Your task to perform on an android device: Open the calendar and show me this week's events? Image 0: 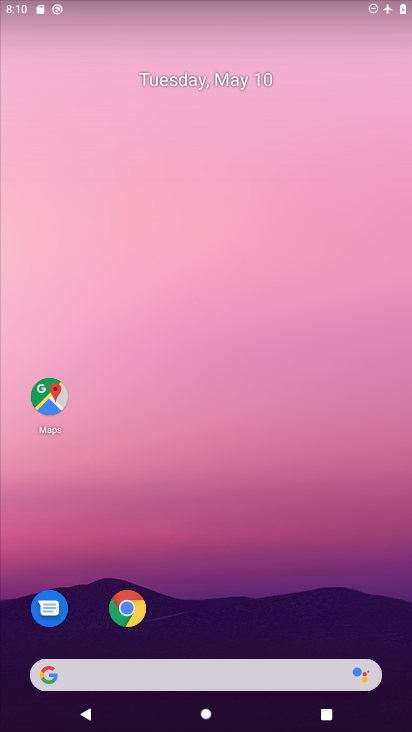
Step 0: drag from (280, 579) to (297, 252)
Your task to perform on an android device: Open the calendar and show me this week's events? Image 1: 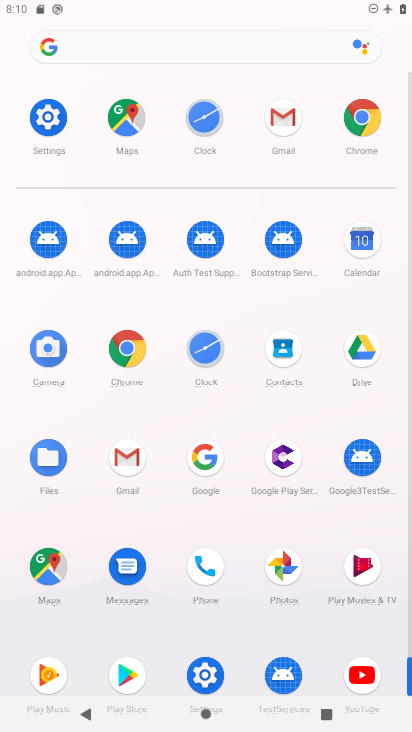
Step 1: click (359, 229)
Your task to perform on an android device: Open the calendar and show me this week's events? Image 2: 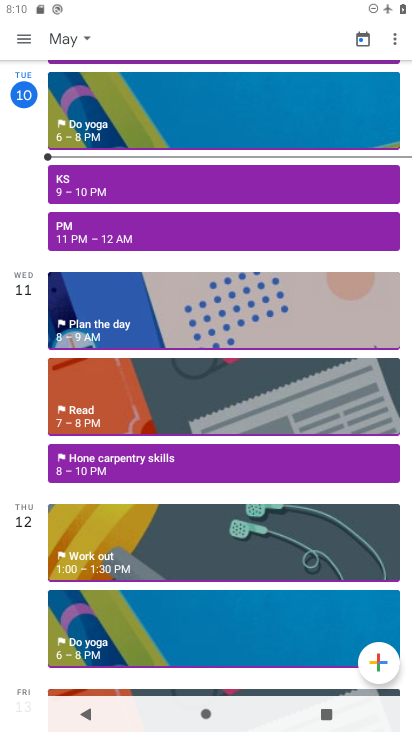
Step 2: click (26, 32)
Your task to perform on an android device: Open the calendar and show me this week's events? Image 3: 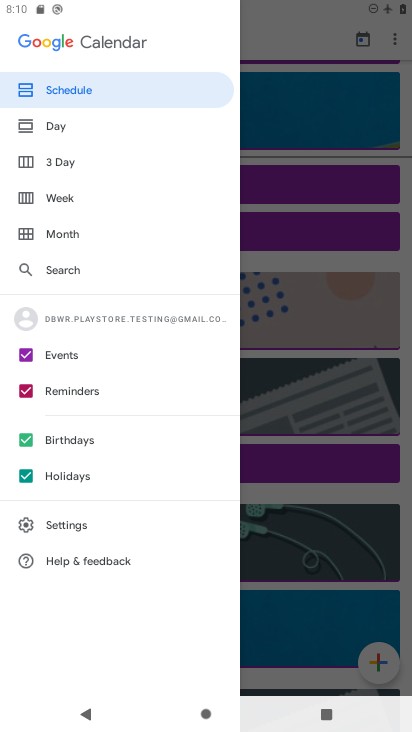
Step 3: click (54, 229)
Your task to perform on an android device: Open the calendar and show me this week's events? Image 4: 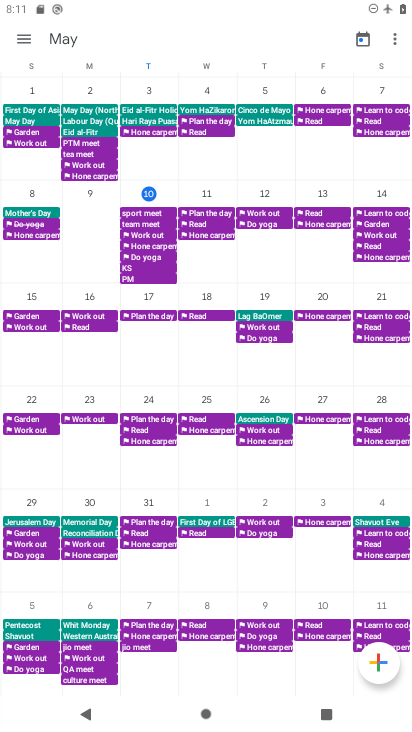
Step 4: click (248, 192)
Your task to perform on an android device: Open the calendar and show me this week's events? Image 5: 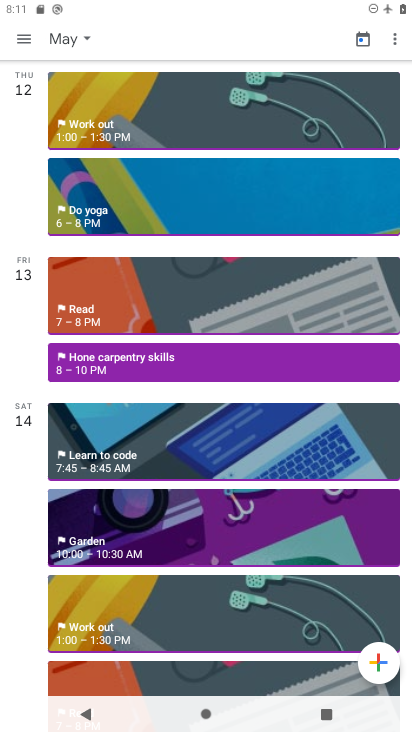
Step 5: click (106, 205)
Your task to perform on an android device: Open the calendar and show me this week's events? Image 6: 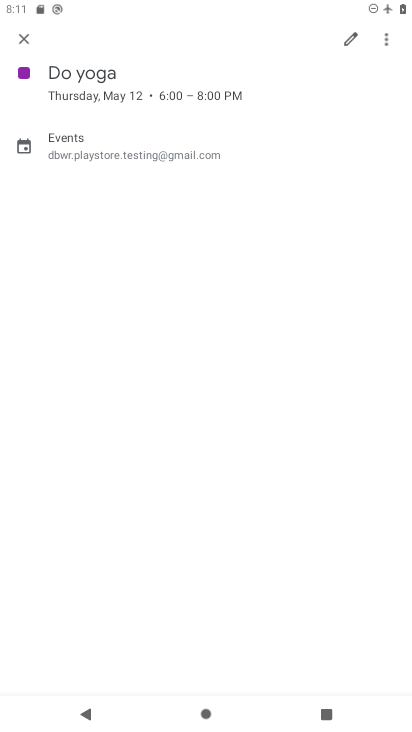
Step 6: task complete